Your task to perform on an android device: Open calendar and show me the first week of next month Image 0: 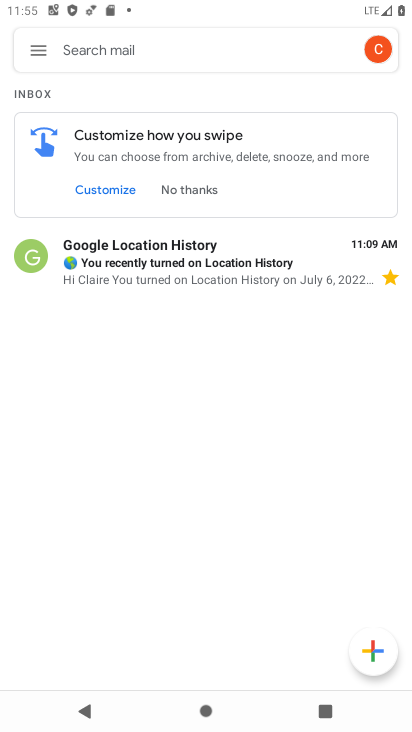
Step 0: press home button
Your task to perform on an android device: Open calendar and show me the first week of next month Image 1: 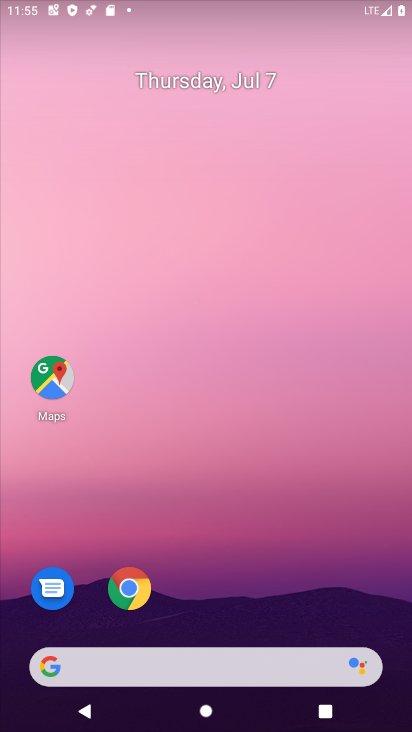
Step 1: drag from (275, 611) to (278, 125)
Your task to perform on an android device: Open calendar and show me the first week of next month Image 2: 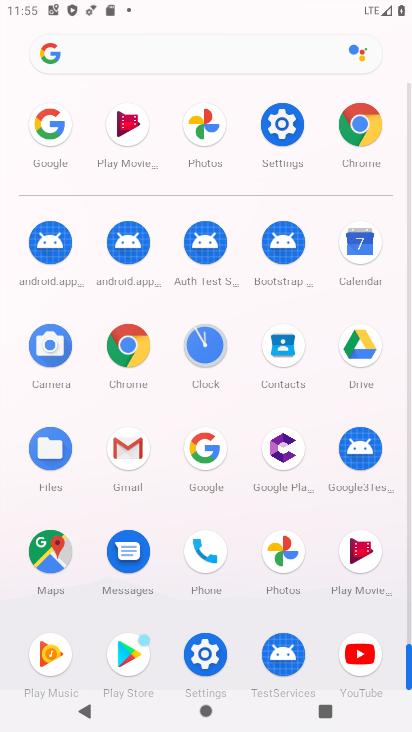
Step 2: click (364, 242)
Your task to perform on an android device: Open calendar and show me the first week of next month Image 3: 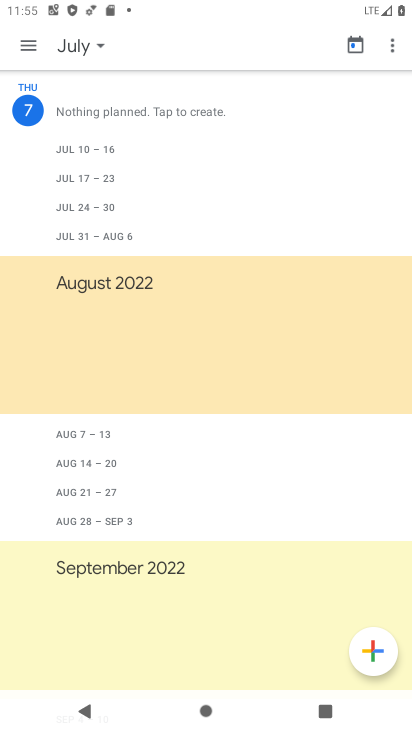
Step 3: click (90, 38)
Your task to perform on an android device: Open calendar and show me the first week of next month Image 4: 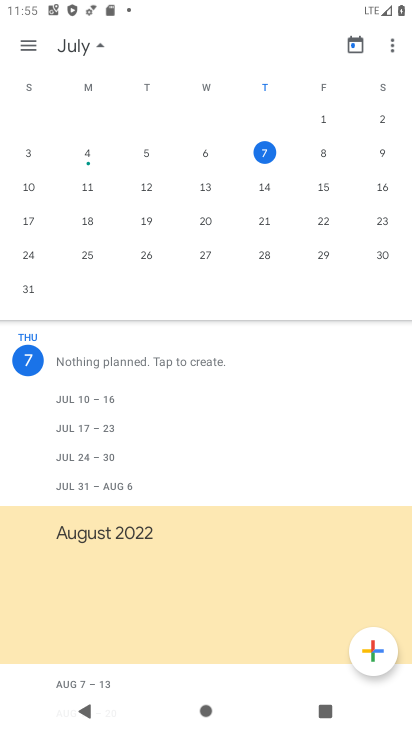
Step 4: drag from (355, 302) to (32, 188)
Your task to perform on an android device: Open calendar and show me the first week of next month Image 5: 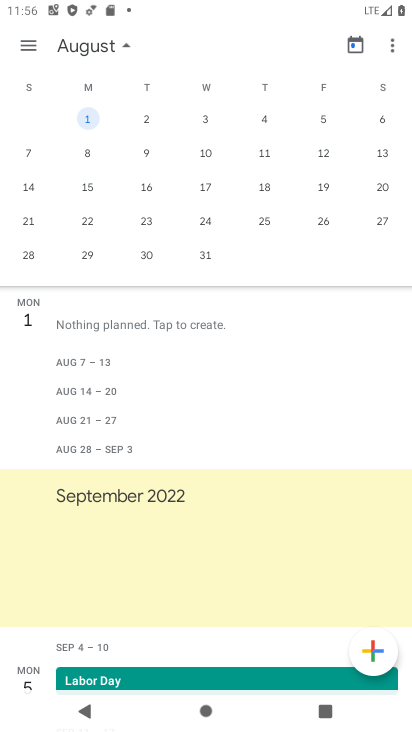
Step 5: click (268, 118)
Your task to perform on an android device: Open calendar and show me the first week of next month Image 6: 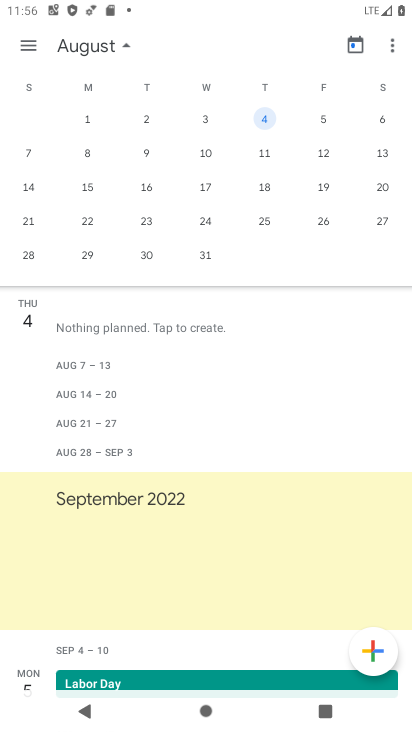
Step 6: task complete